Your task to perform on an android device: open sync settings in chrome Image 0: 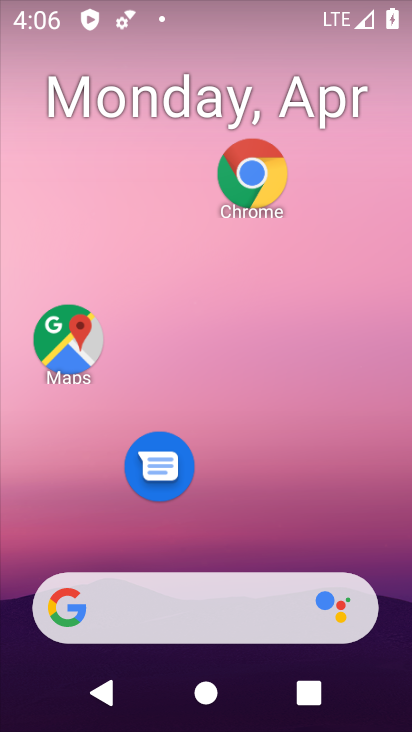
Step 0: click (252, 165)
Your task to perform on an android device: open sync settings in chrome Image 1: 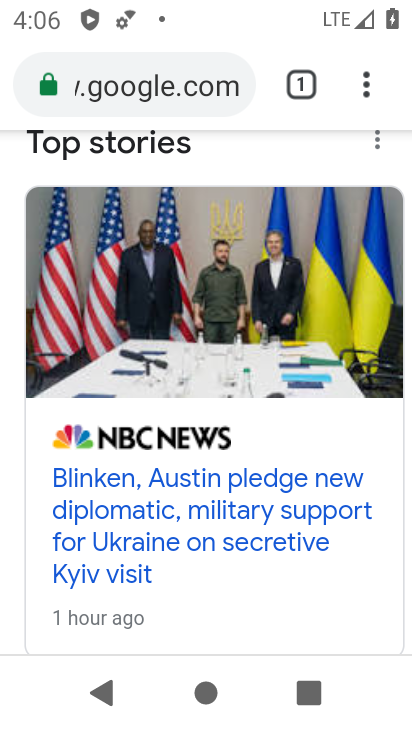
Step 1: drag from (366, 118) to (258, 518)
Your task to perform on an android device: open sync settings in chrome Image 2: 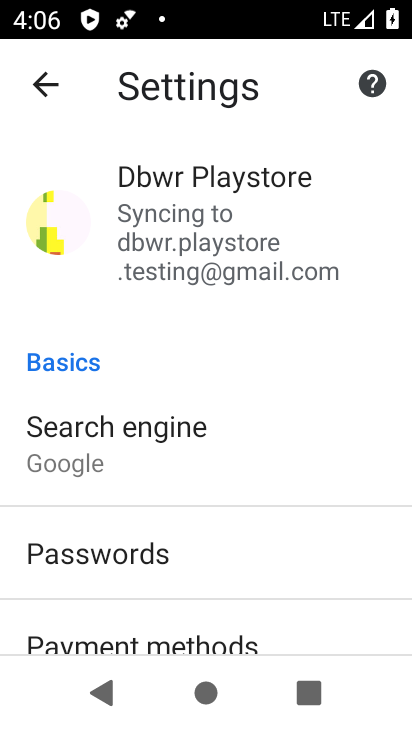
Step 2: click (176, 306)
Your task to perform on an android device: open sync settings in chrome Image 3: 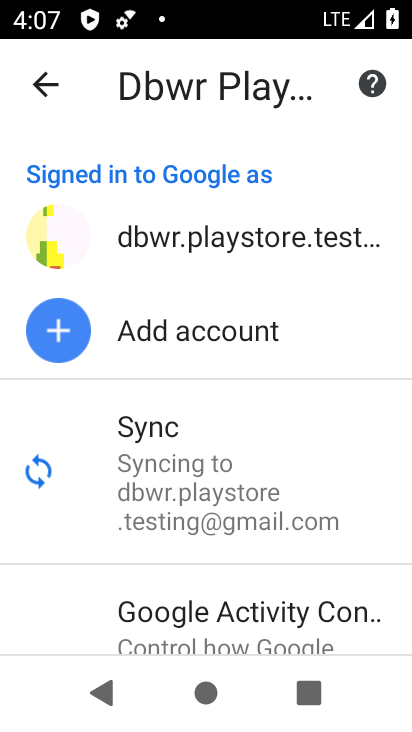
Step 3: task complete